Your task to perform on an android device: Check the news Image 0: 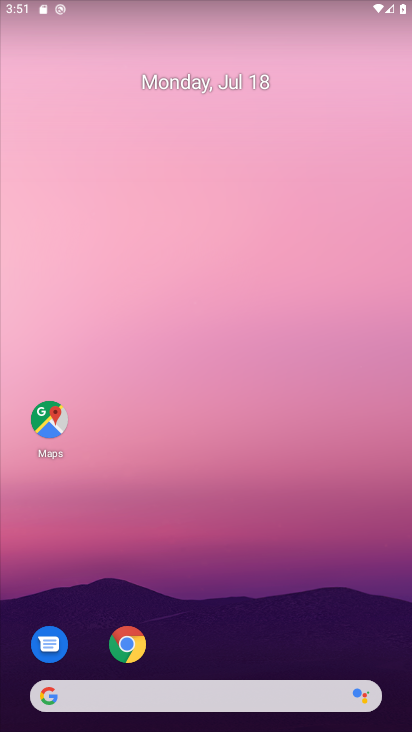
Step 0: click (199, 705)
Your task to perform on an android device: Check the news Image 1: 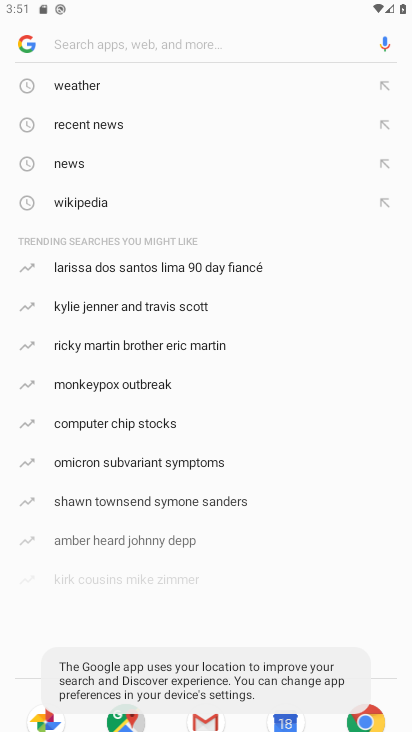
Step 1: click (231, 49)
Your task to perform on an android device: Check the news Image 2: 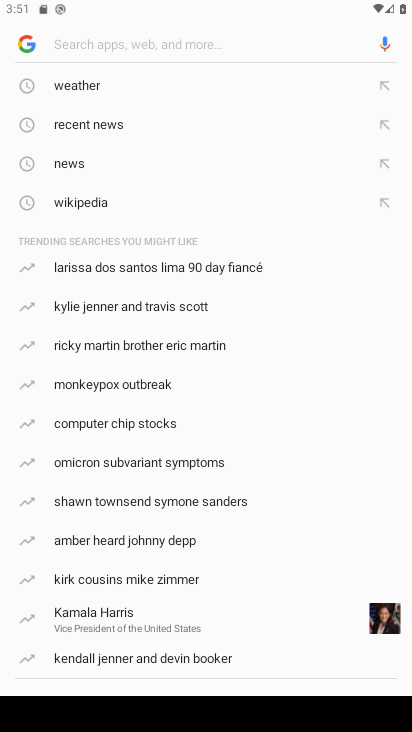
Step 2: click (162, 160)
Your task to perform on an android device: Check the news Image 3: 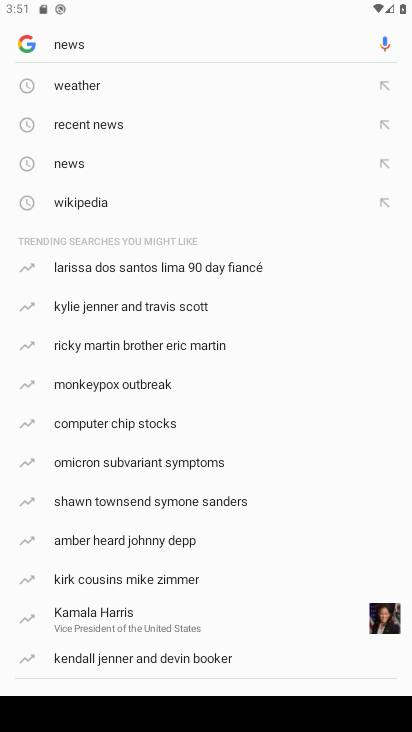
Step 3: task complete